Your task to perform on an android device: turn off data saver in the chrome app Image 0: 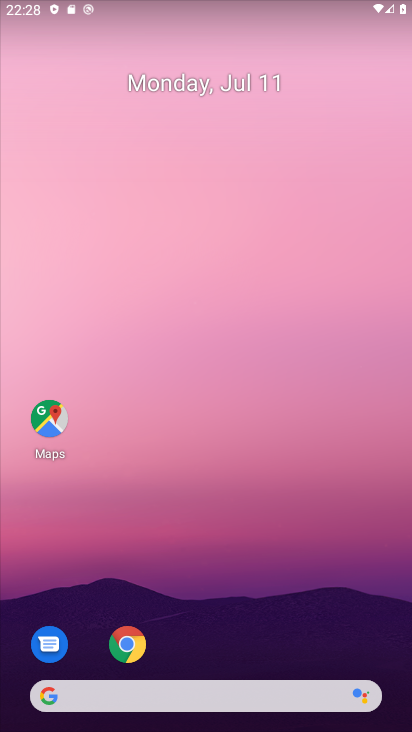
Step 0: drag from (295, 659) to (262, 214)
Your task to perform on an android device: turn off data saver in the chrome app Image 1: 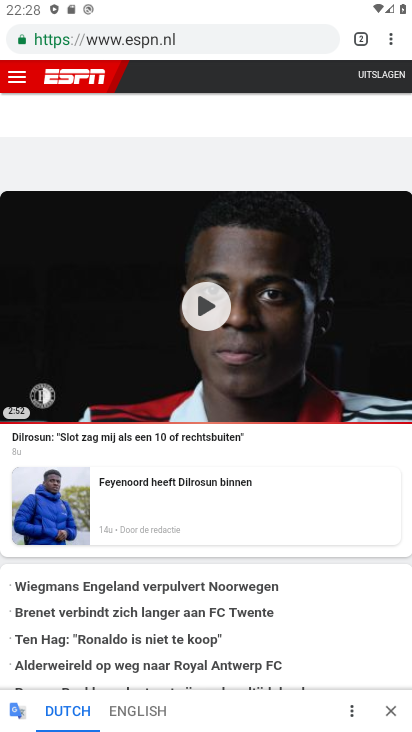
Step 1: press back button
Your task to perform on an android device: turn off data saver in the chrome app Image 2: 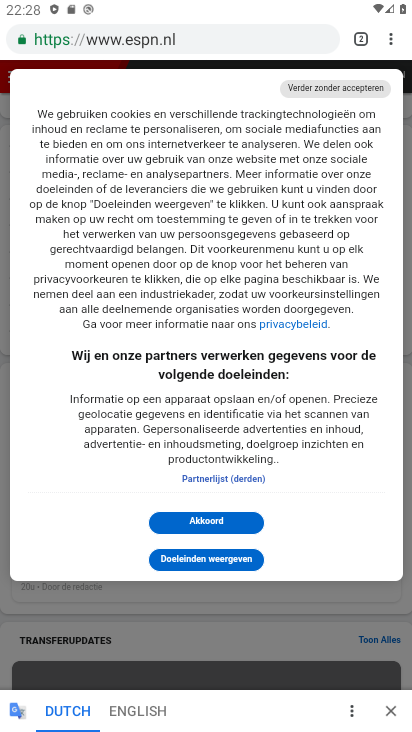
Step 2: press back button
Your task to perform on an android device: turn off data saver in the chrome app Image 3: 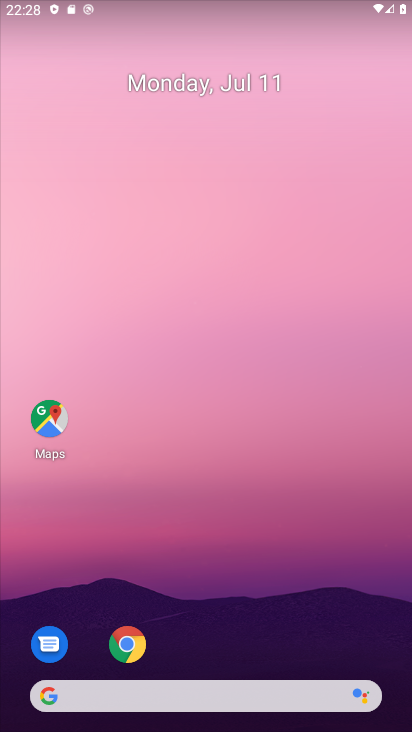
Step 3: press home button
Your task to perform on an android device: turn off data saver in the chrome app Image 4: 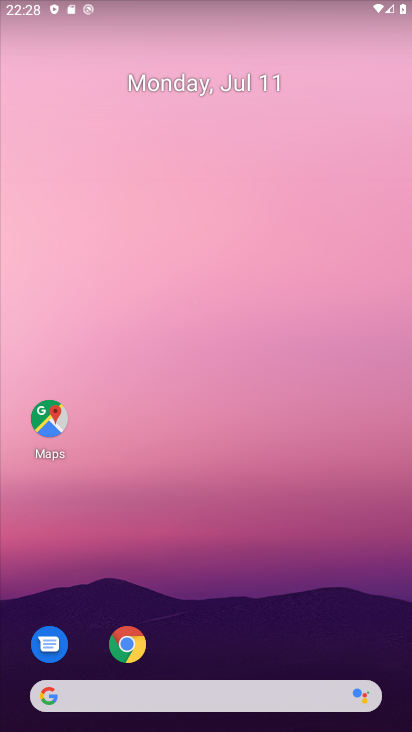
Step 4: drag from (258, 555) to (209, 151)
Your task to perform on an android device: turn off data saver in the chrome app Image 5: 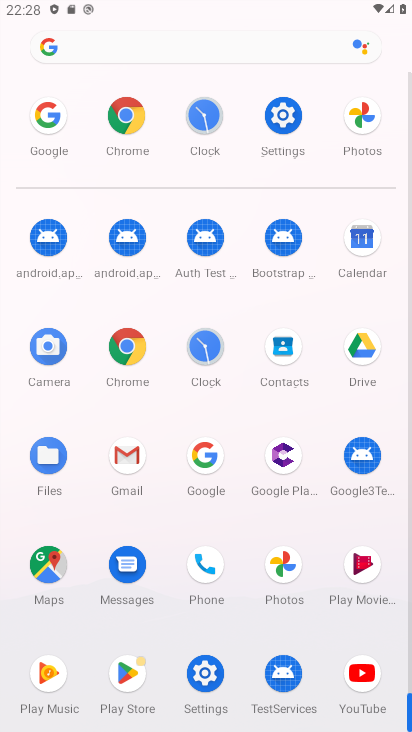
Step 5: click (123, 114)
Your task to perform on an android device: turn off data saver in the chrome app Image 6: 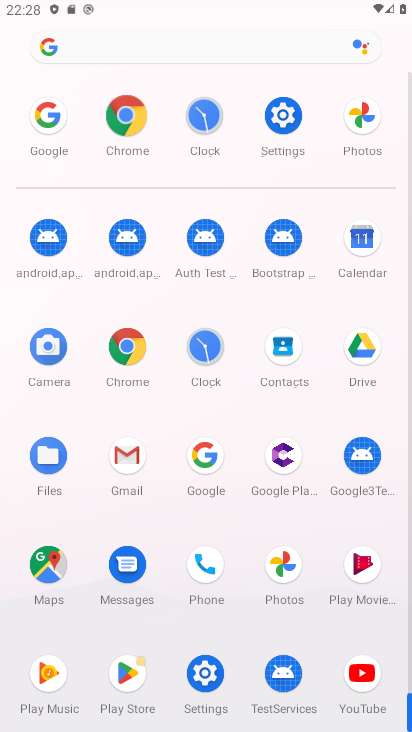
Step 6: click (126, 117)
Your task to perform on an android device: turn off data saver in the chrome app Image 7: 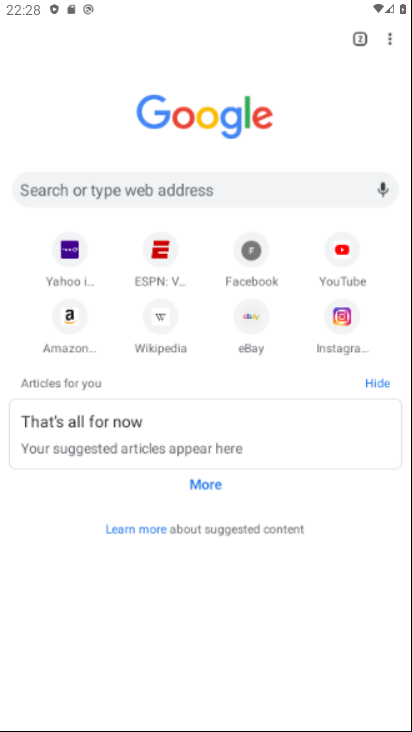
Step 7: click (128, 121)
Your task to perform on an android device: turn off data saver in the chrome app Image 8: 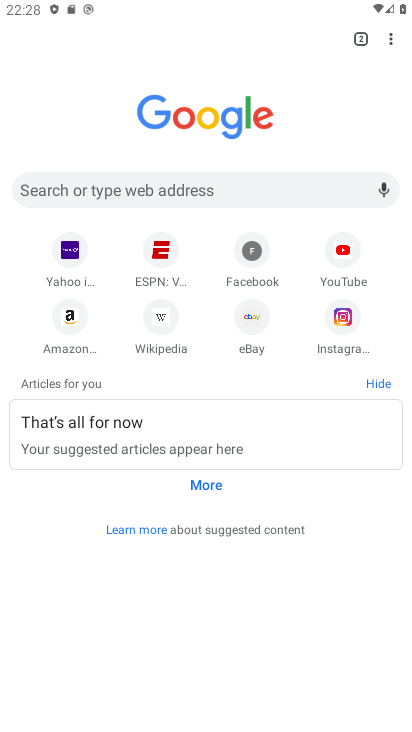
Step 8: click (386, 32)
Your task to perform on an android device: turn off data saver in the chrome app Image 9: 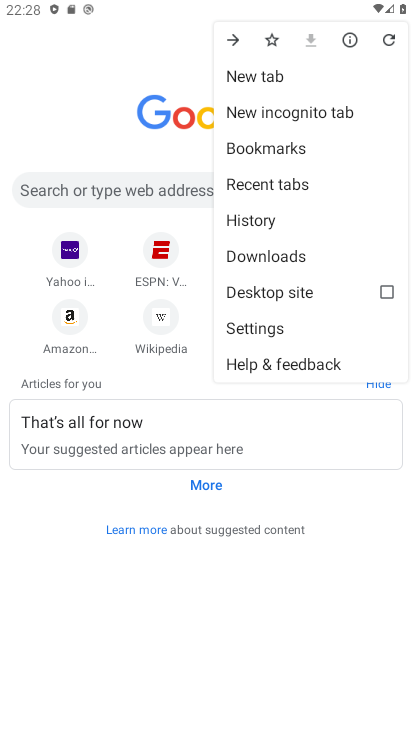
Step 9: click (249, 319)
Your task to perform on an android device: turn off data saver in the chrome app Image 10: 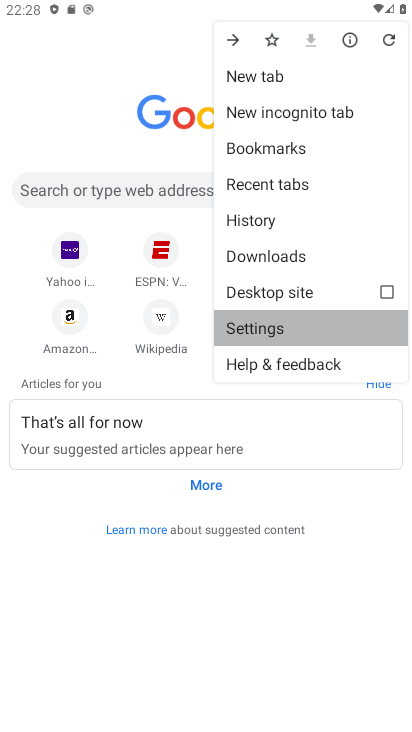
Step 10: click (249, 319)
Your task to perform on an android device: turn off data saver in the chrome app Image 11: 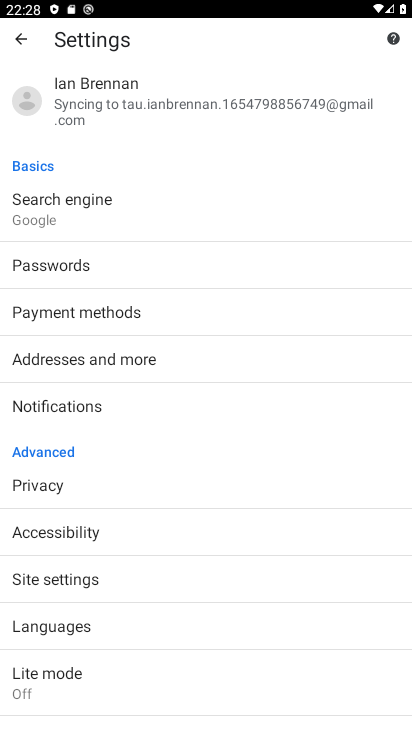
Step 11: click (43, 570)
Your task to perform on an android device: turn off data saver in the chrome app Image 12: 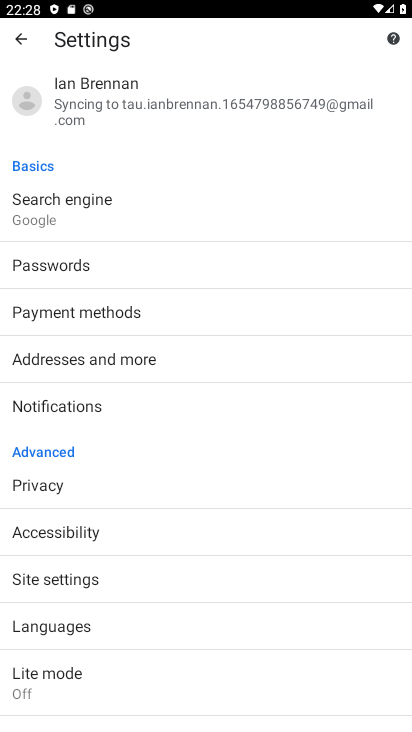
Step 12: click (39, 567)
Your task to perform on an android device: turn off data saver in the chrome app Image 13: 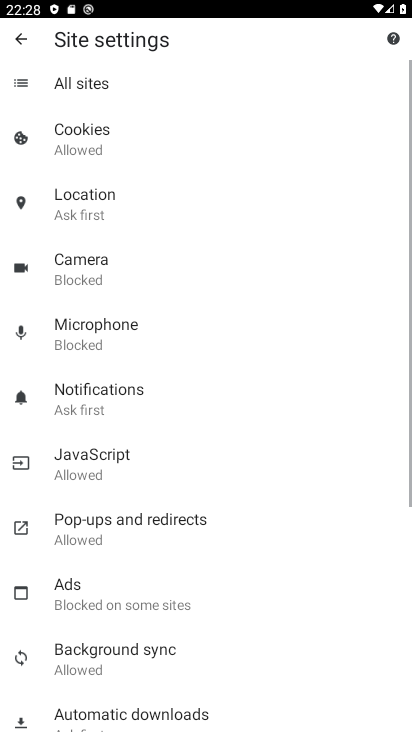
Step 13: click (20, 43)
Your task to perform on an android device: turn off data saver in the chrome app Image 14: 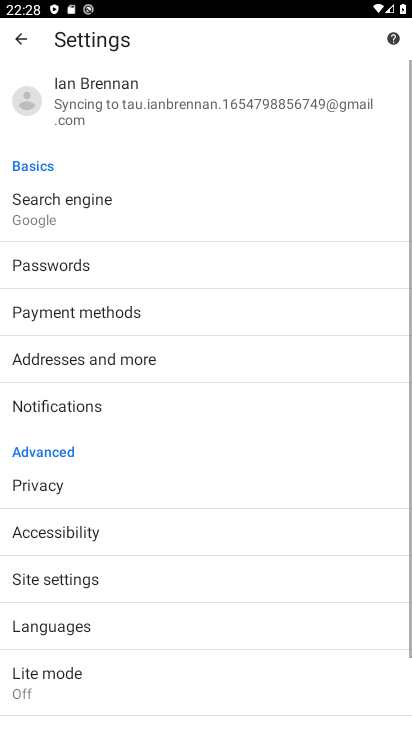
Step 14: click (45, 664)
Your task to perform on an android device: turn off data saver in the chrome app Image 15: 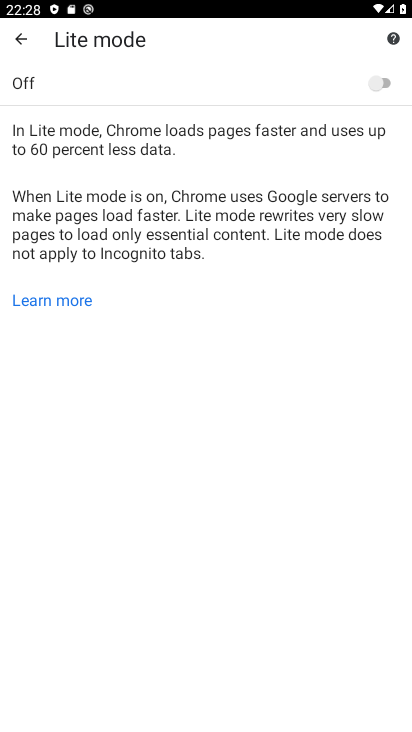
Step 15: task complete